Your task to perform on an android device: open a bookmark in the chrome app Image 0: 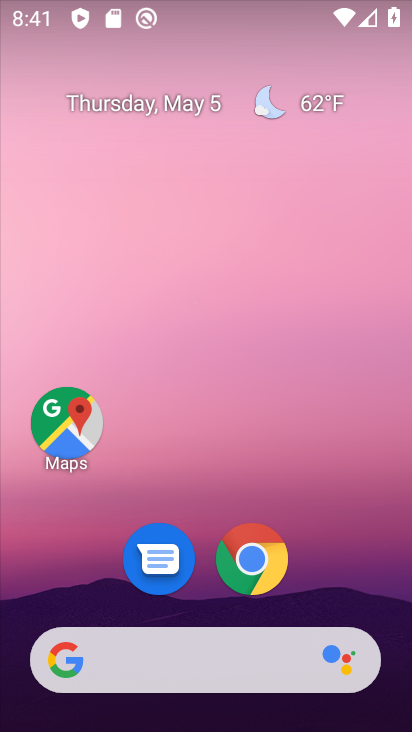
Step 0: click (256, 590)
Your task to perform on an android device: open a bookmark in the chrome app Image 1: 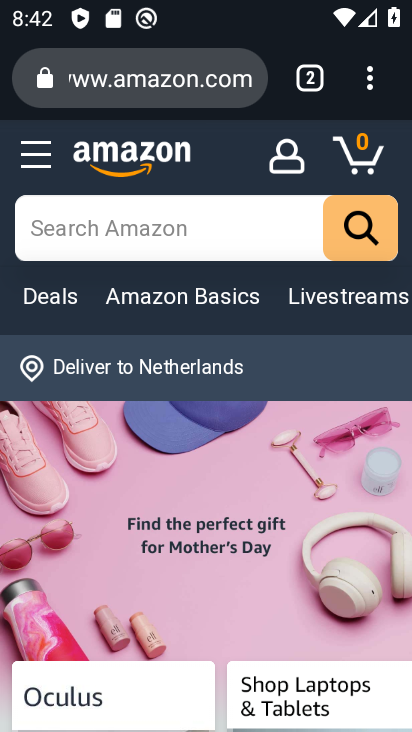
Step 1: drag from (366, 74) to (133, 294)
Your task to perform on an android device: open a bookmark in the chrome app Image 2: 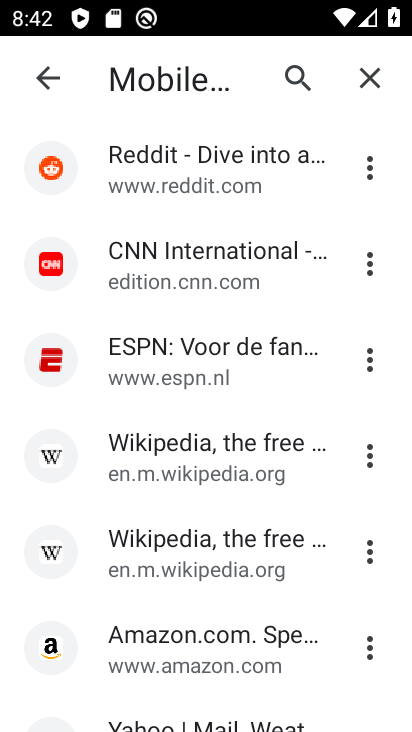
Step 2: click (182, 153)
Your task to perform on an android device: open a bookmark in the chrome app Image 3: 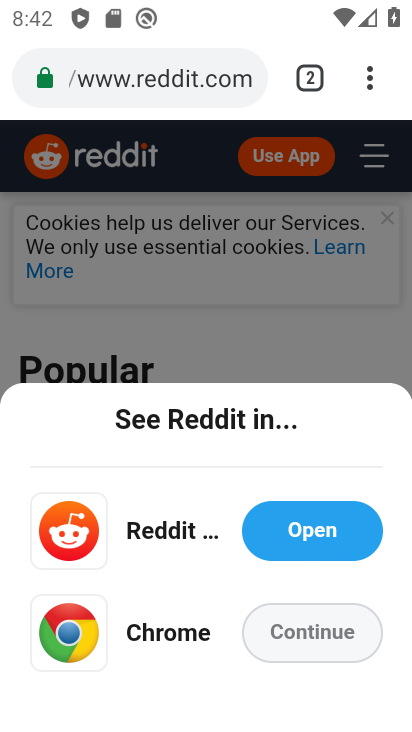
Step 3: task complete